Your task to perform on an android device: turn on javascript in the chrome app Image 0: 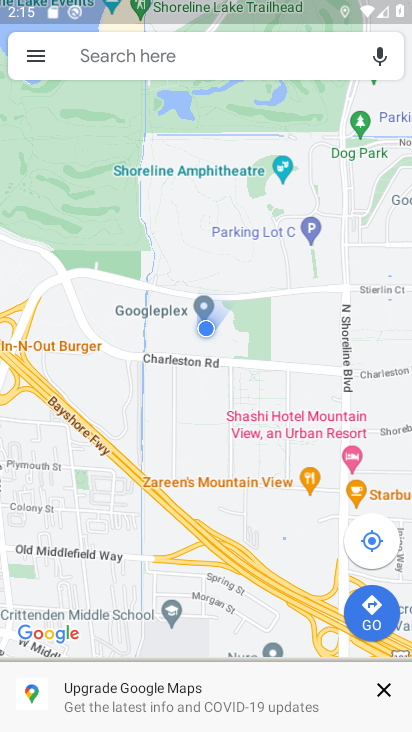
Step 0: press home button
Your task to perform on an android device: turn on javascript in the chrome app Image 1: 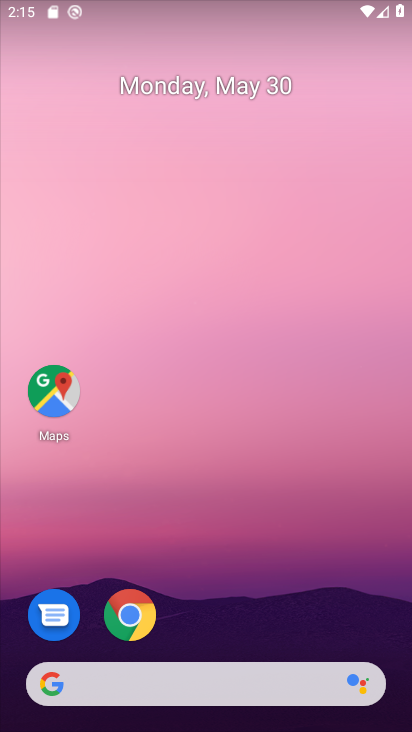
Step 1: click (138, 604)
Your task to perform on an android device: turn on javascript in the chrome app Image 2: 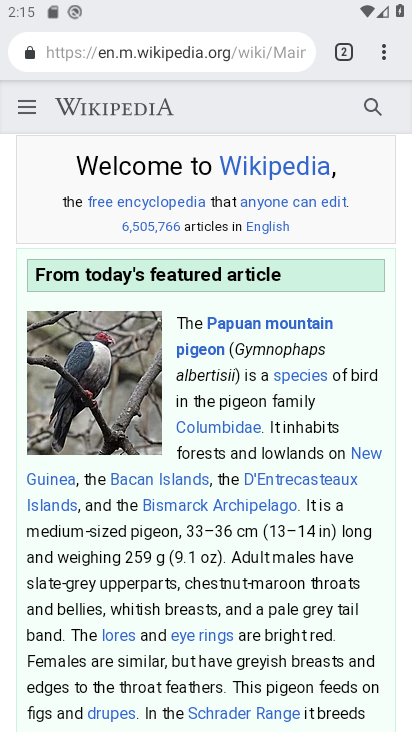
Step 2: click (382, 45)
Your task to perform on an android device: turn on javascript in the chrome app Image 3: 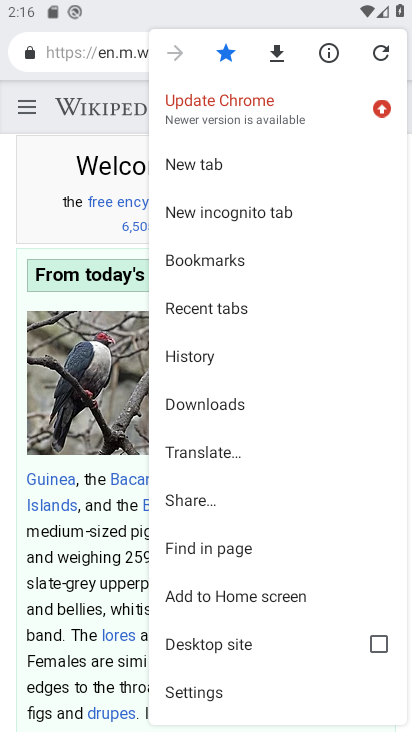
Step 3: click (228, 688)
Your task to perform on an android device: turn on javascript in the chrome app Image 4: 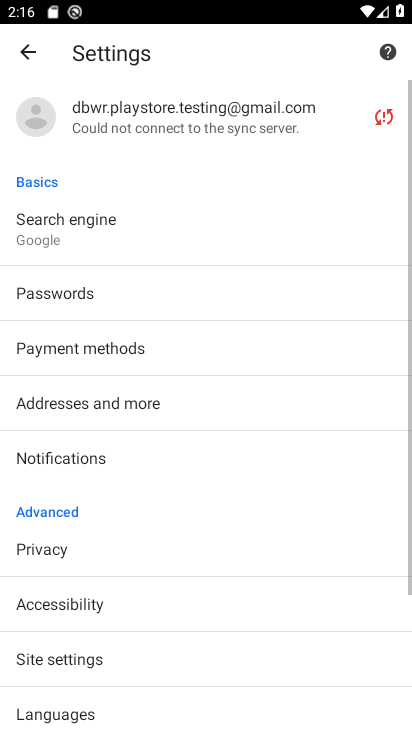
Step 4: click (222, 653)
Your task to perform on an android device: turn on javascript in the chrome app Image 5: 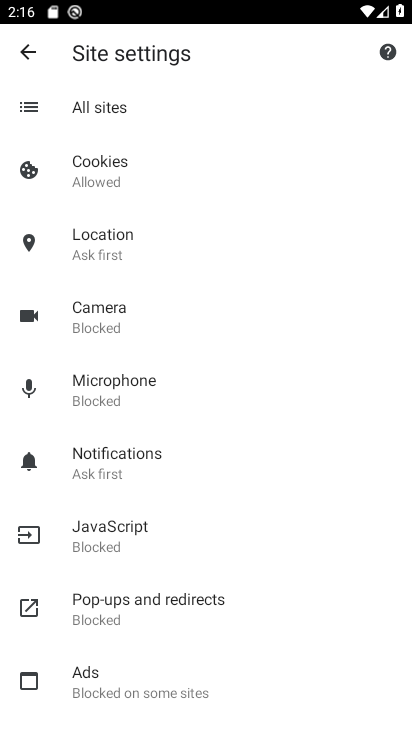
Step 5: click (186, 531)
Your task to perform on an android device: turn on javascript in the chrome app Image 6: 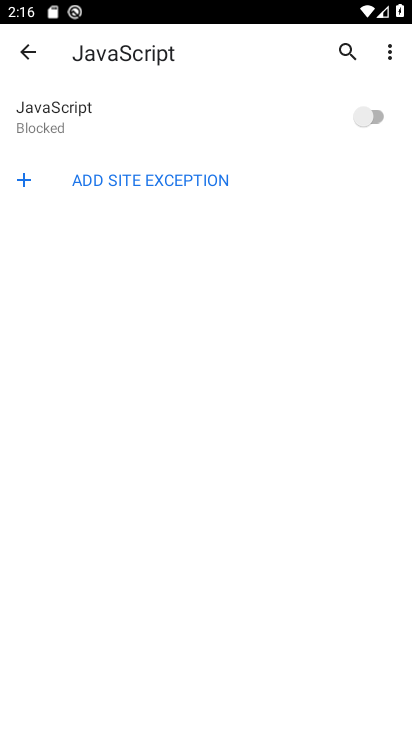
Step 6: click (363, 112)
Your task to perform on an android device: turn on javascript in the chrome app Image 7: 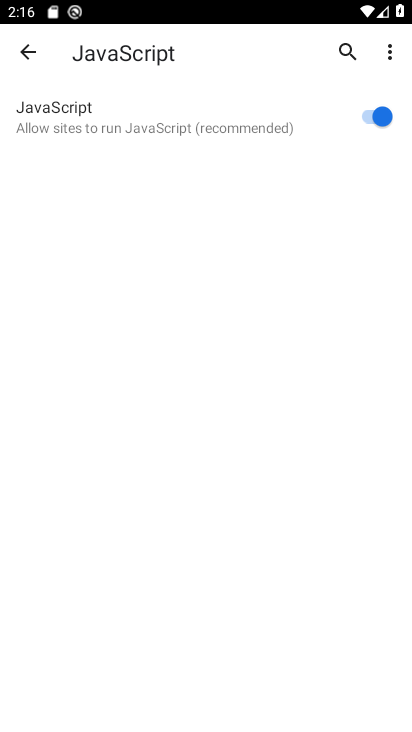
Step 7: task complete